Your task to perform on an android device: Open my contact list Image 0: 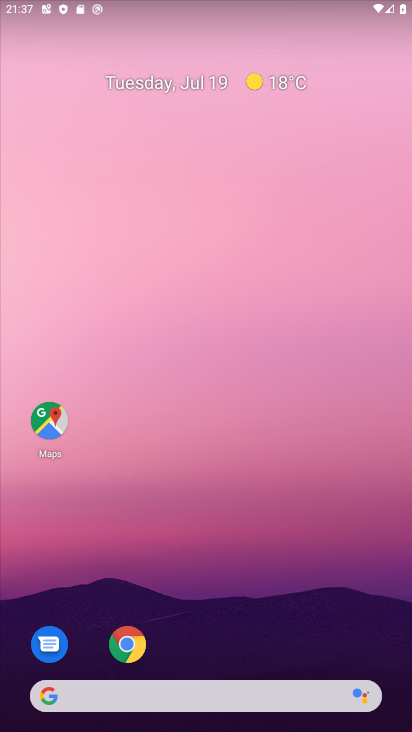
Step 0: drag from (202, 699) to (200, 273)
Your task to perform on an android device: Open my contact list Image 1: 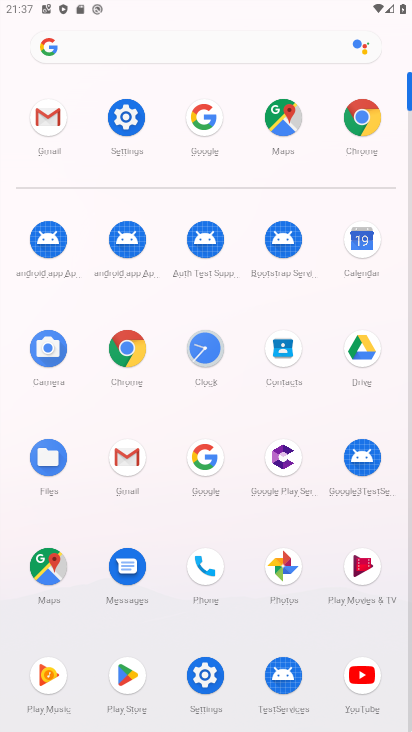
Step 1: click (285, 350)
Your task to perform on an android device: Open my contact list Image 2: 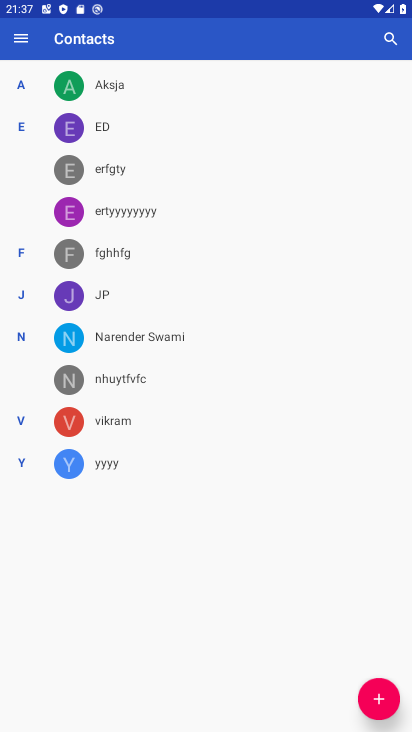
Step 2: task complete